Your task to perform on an android device: check android version Image 0: 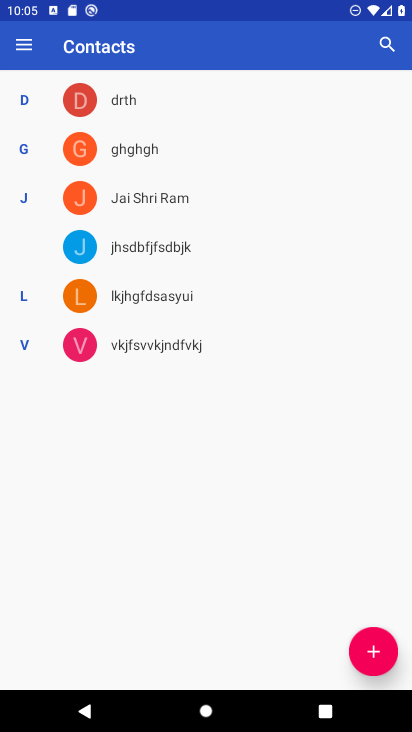
Step 0: press home button
Your task to perform on an android device: check android version Image 1: 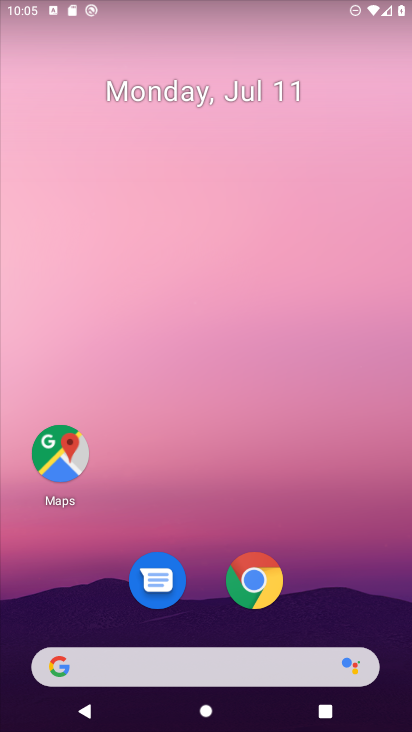
Step 1: drag from (325, 556) to (237, 67)
Your task to perform on an android device: check android version Image 2: 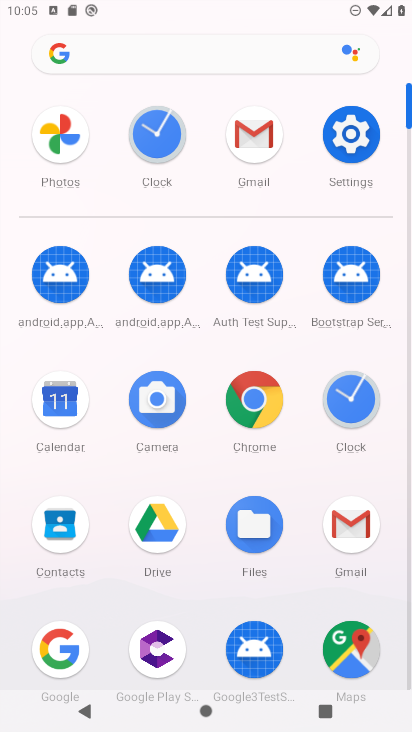
Step 2: click (357, 138)
Your task to perform on an android device: check android version Image 3: 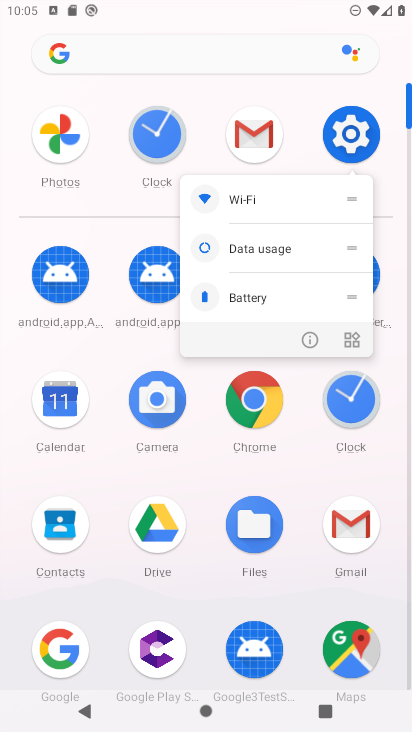
Step 3: click (352, 117)
Your task to perform on an android device: check android version Image 4: 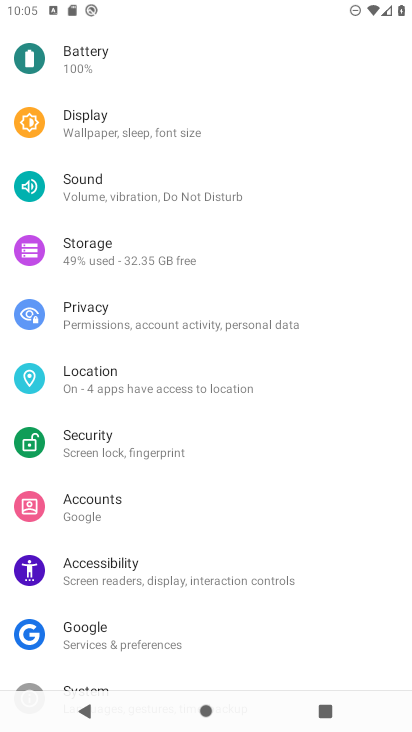
Step 4: drag from (252, 376) to (249, 106)
Your task to perform on an android device: check android version Image 5: 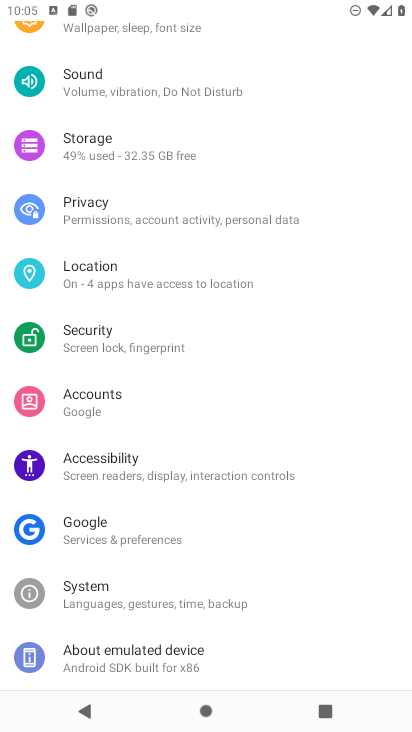
Step 5: click (161, 653)
Your task to perform on an android device: check android version Image 6: 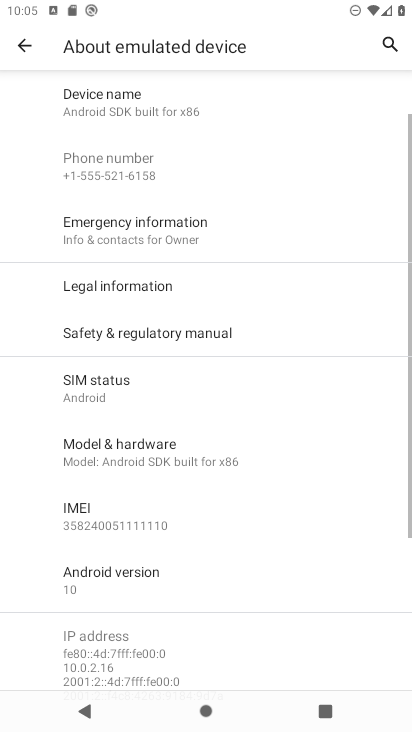
Step 6: click (158, 583)
Your task to perform on an android device: check android version Image 7: 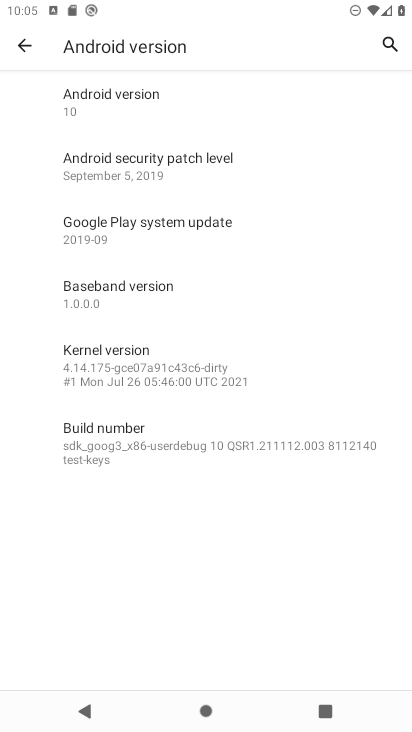
Step 7: task complete